Your task to perform on an android device: turn off priority inbox in the gmail app Image 0: 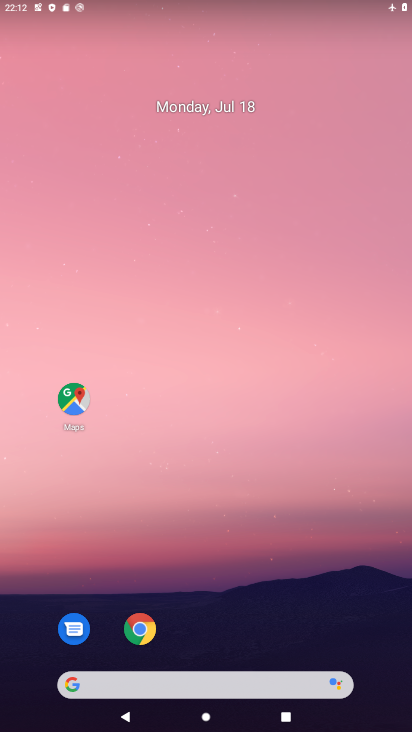
Step 0: drag from (265, 592) to (228, 158)
Your task to perform on an android device: turn off priority inbox in the gmail app Image 1: 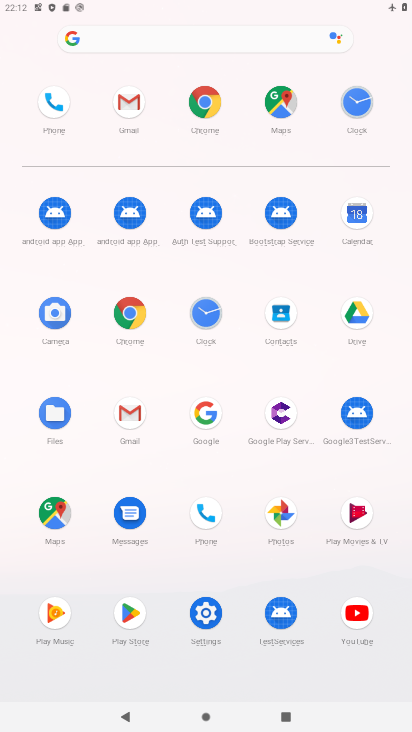
Step 1: click (135, 109)
Your task to perform on an android device: turn off priority inbox in the gmail app Image 2: 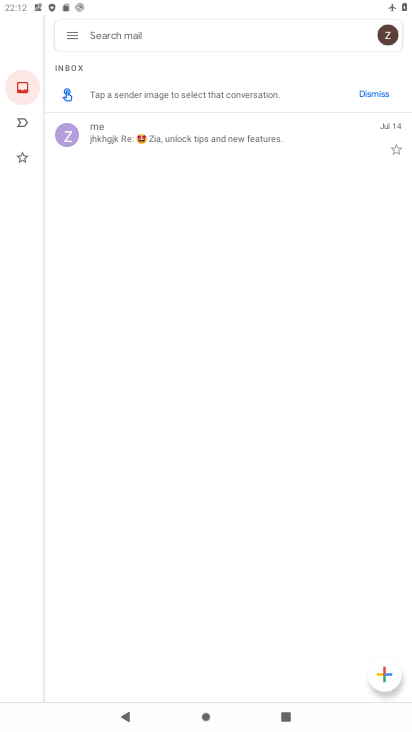
Step 2: click (78, 42)
Your task to perform on an android device: turn off priority inbox in the gmail app Image 3: 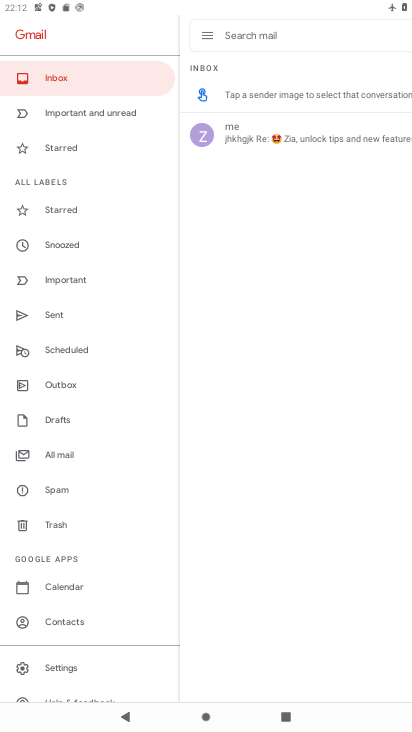
Step 3: click (61, 667)
Your task to perform on an android device: turn off priority inbox in the gmail app Image 4: 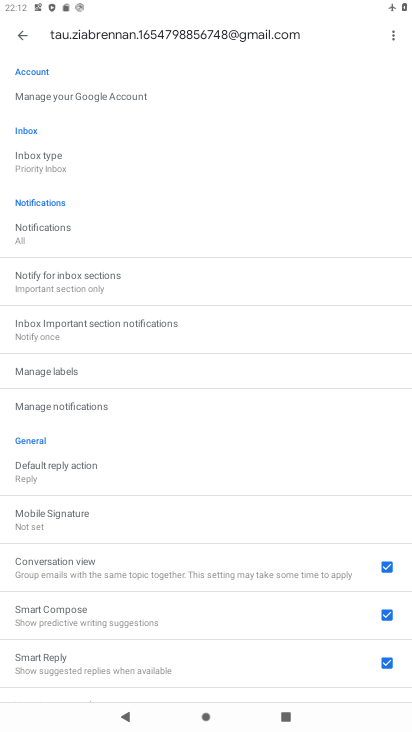
Step 4: task complete